Your task to perform on an android device: Open wifi settings Image 0: 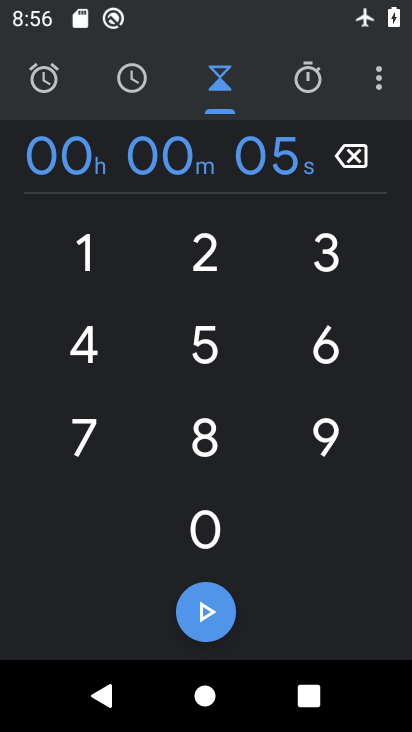
Step 0: press home button
Your task to perform on an android device: Open wifi settings Image 1: 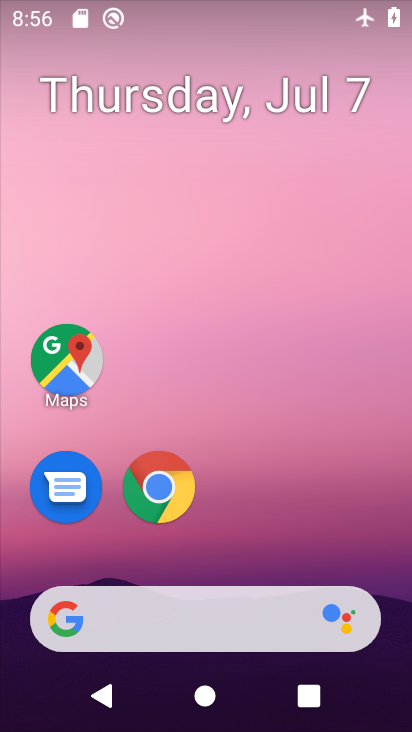
Step 1: drag from (367, 541) to (335, 112)
Your task to perform on an android device: Open wifi settings Image 2: 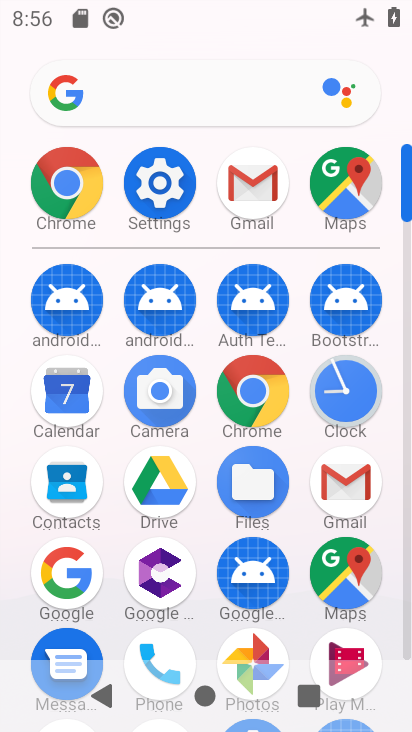
Step 2: click (178, 203)
Your task to perform on an android device: Open wifi settings Image 3: 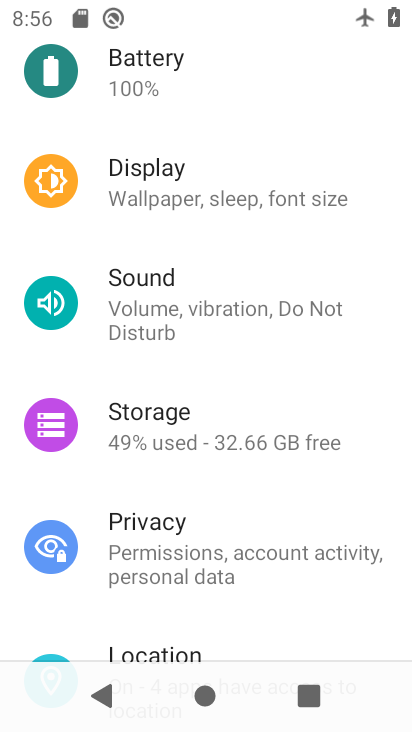
Step 3: drag from (372, 238) to (367, 346)
Your task to perform on an android device: Open wifi settings Image 4: 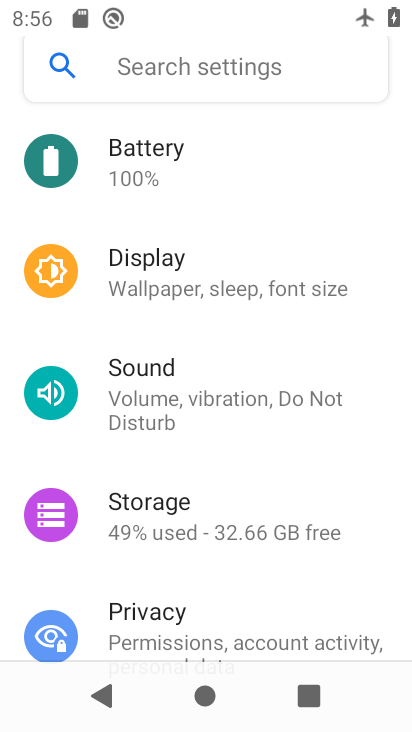
Step 4: drag from (365, 241) to (385, 364)
Your task to perform on an android device: Open wifi settings Image 5: 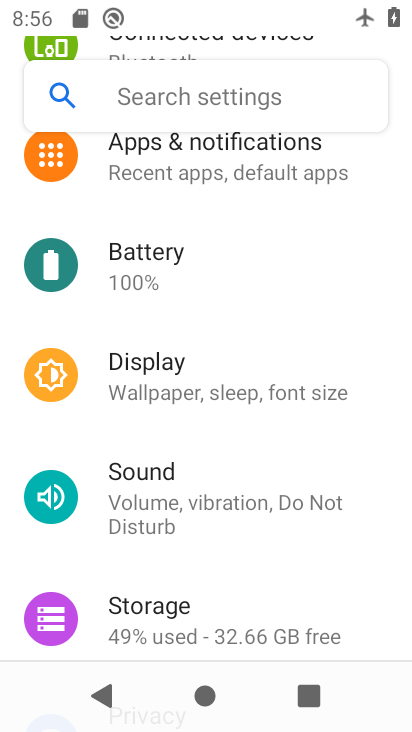
Step 5: drag from (369, 282) to (384, 381)
Your task to perform on an android device: Open wifi settings Image 6: 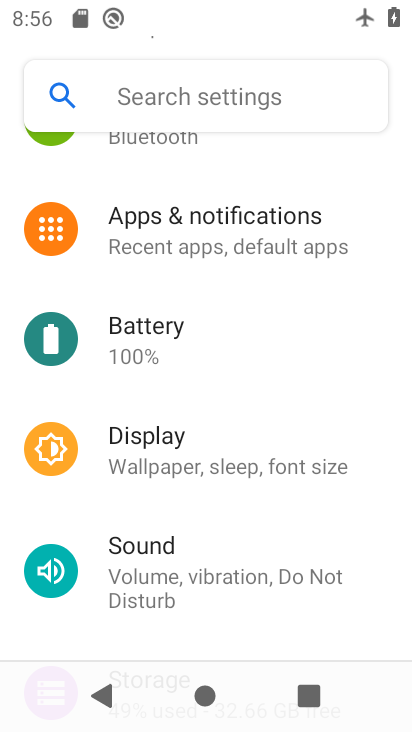
Step 6: drag from (365, 249) to (368, 352)
Your task to perform on an android device: Open wifi settings Image 7: 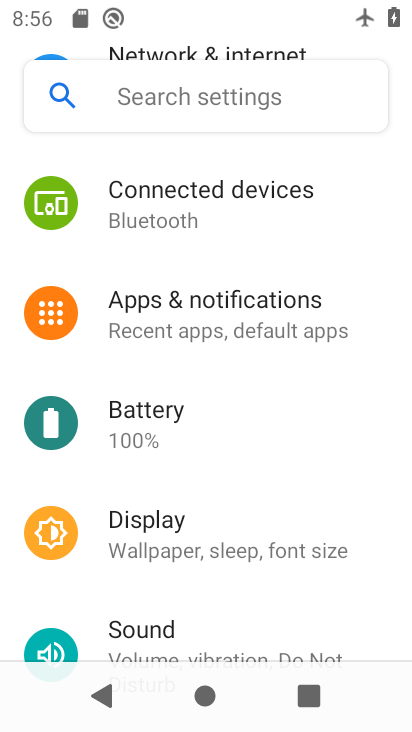
Step 7: drag from (362, 238) to (366, 333)
Your task to perform on an android device: Open wifi settings Image 8: 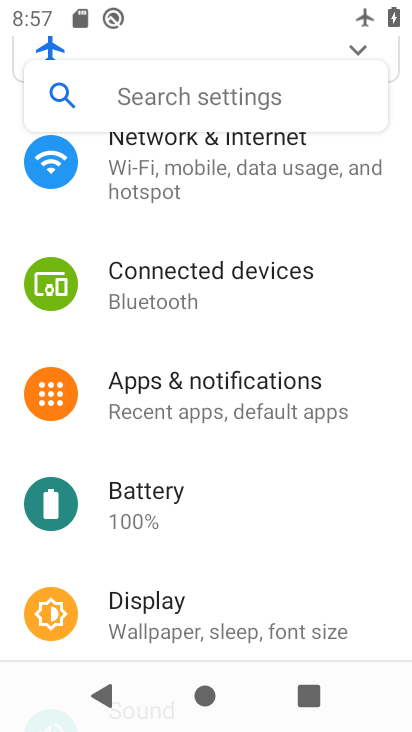
Step 8: drag from (361, 236) to (364, 350)
Your task to perform on an android device: Open wifi settings Image 9: 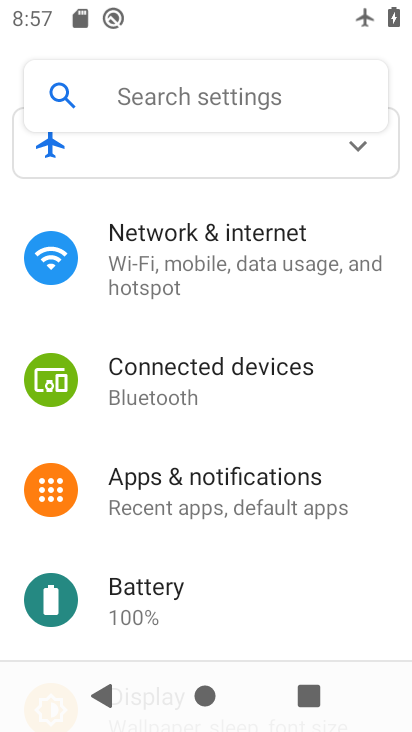
Step 9: drag from (377, 212) to (372, 408)
Your task to perform on an android device: Open wifi settings Image 10: 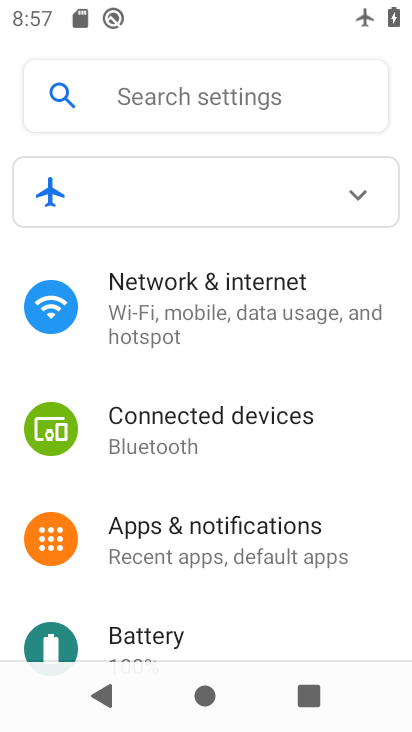
Step 10: click (313, 310)
Your task to perform on an android device: Open wifi settings Image 11: 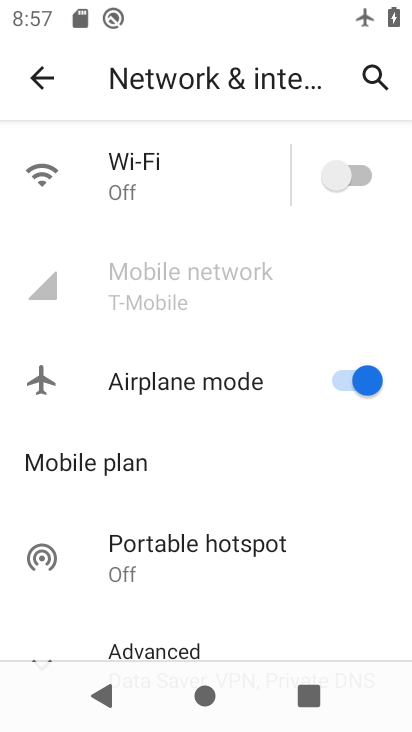
Step 11: click (163, 163)
Your task to perform on an android device: Open wifi settings Image 12: 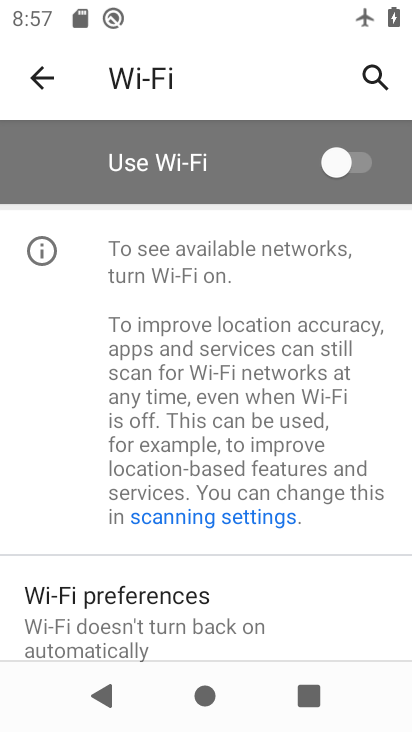
Step 12: task complete